Your task to perform on an android device: Open the map Image 0: 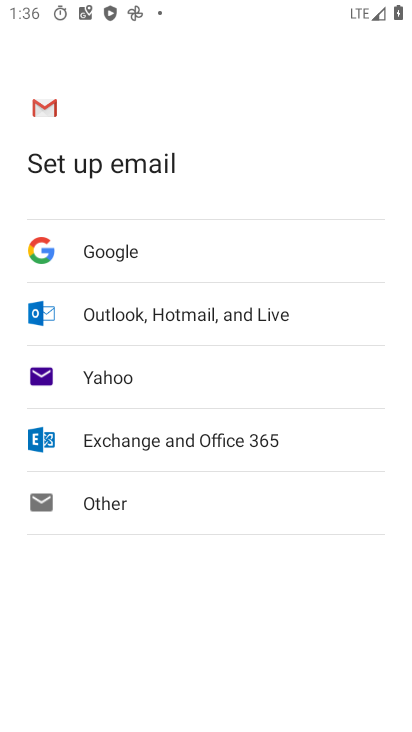
Step 0: press home button
Your task to perform on an android device: Open the map Image 1: 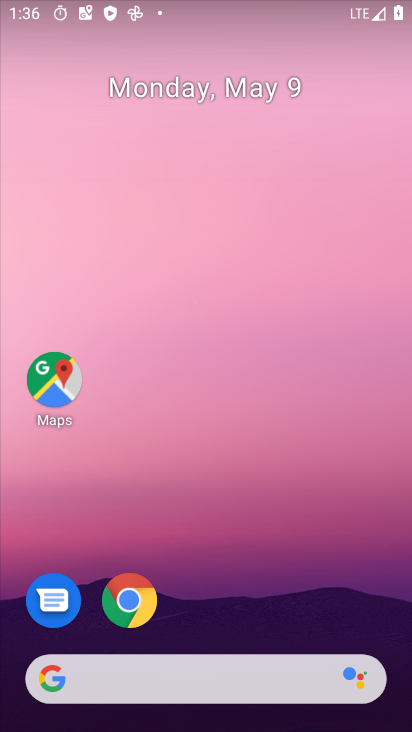
Step 1: drag from (226, 617) to (235, 224)
Your task to perform on an android device: Open the map Image 2: 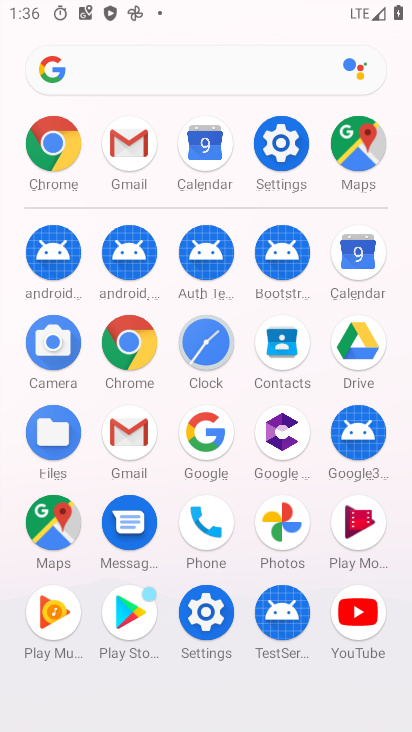
Step 2: click (67, 524)
Your task to perform on an android device: Open the map Image 3: 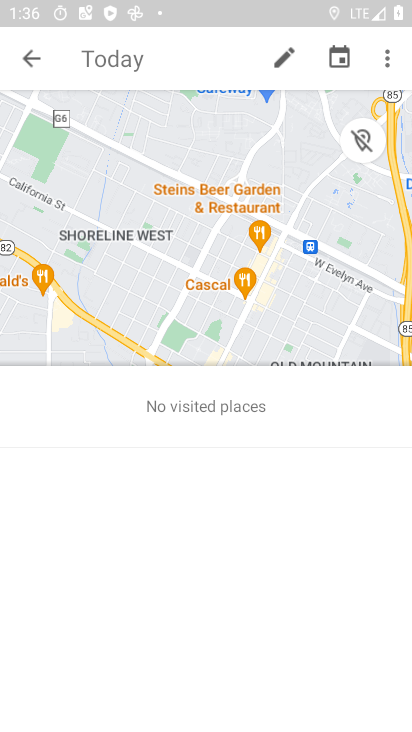
Step 3: click (42, 72)
Your task to perform on an android device: Open the map Image 4: 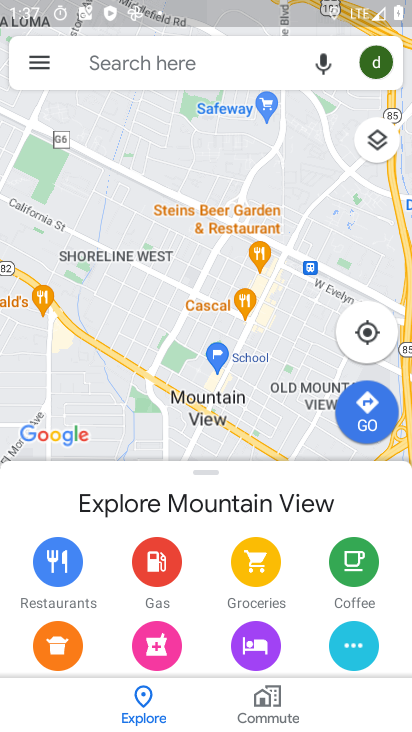
Step 4: task complete